Your task to perform on an android device: Search for lenovo thinkpad on newegg.com, select the first entry, add it to the cart, then select checkout. Image 0: 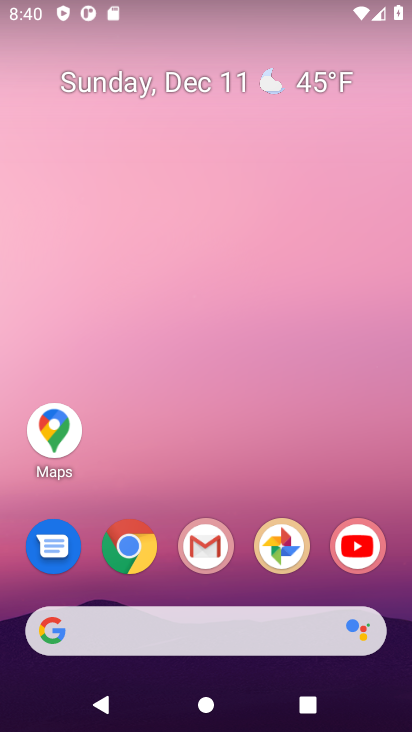
Step 0: click (127, 553)
Your task to perform on an android device: Search for lenovo thinkpad on newegg.com, select the first entry, add it to the cart, then select checkout. Image 1: 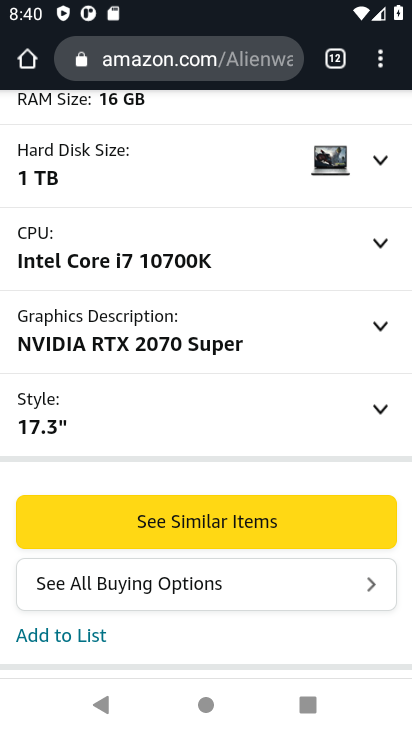
Step 1: click (156, 60)
Your task to perform on an android device: Search for lenovo thinkpad on newegg.com, select the first entry, add it to the cart, then select checkout. Image 2: 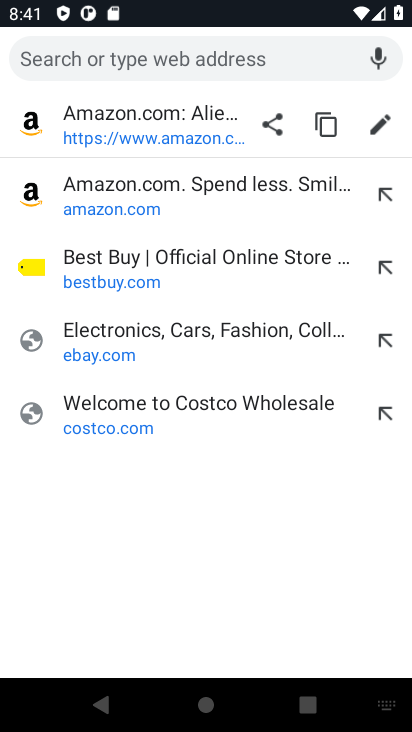
Step 2: type "newegg.com"
Your task to perform on an android device: Search for lenovo thinkpad on newegg.com, select the first entry, add it to the cart, then select checkout. Image 3: 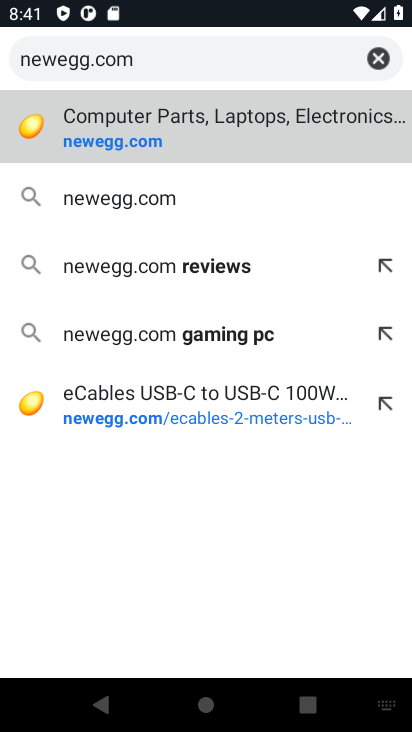
Step 3: click (126, 140)
Your task to perform on an android device: Search for lenovo thinkpad on newegg.com, select the first entry, add it to the cart, then select checkout. Image 4: 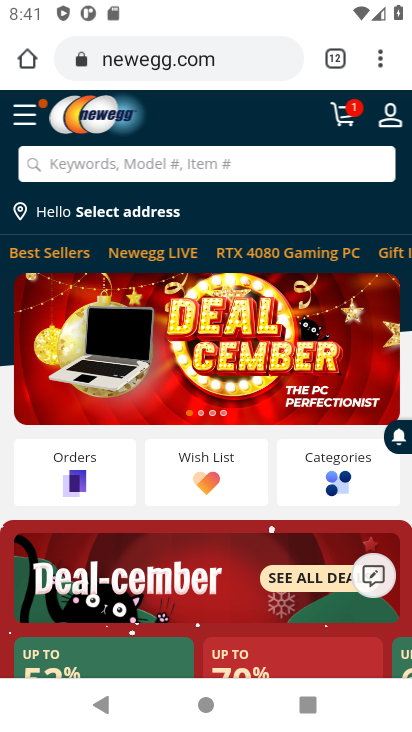
Step 4: click (80, 167)
Your task to perform on an android device: Search for lenovo thinkpad on newegg.com, select the first entry, add it to the cart, then select checkout. Image 5: 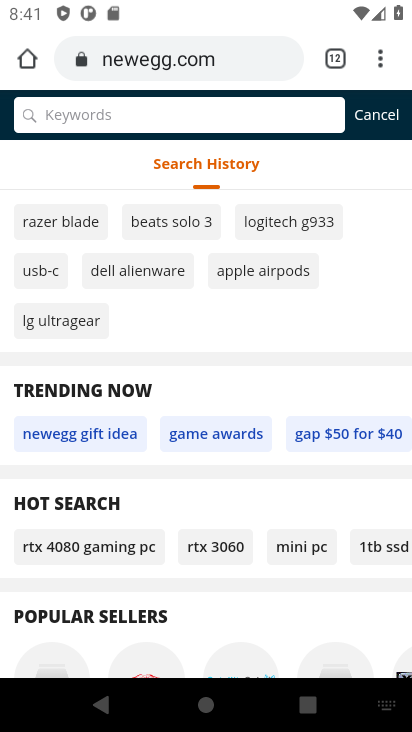
Step 5: type " lenovo thinkpad "
Your task to perform on an android device: Search for lenovo thinkpad on newegg.com, select the first entry, add it to the cart, then select checkout. Image 6: 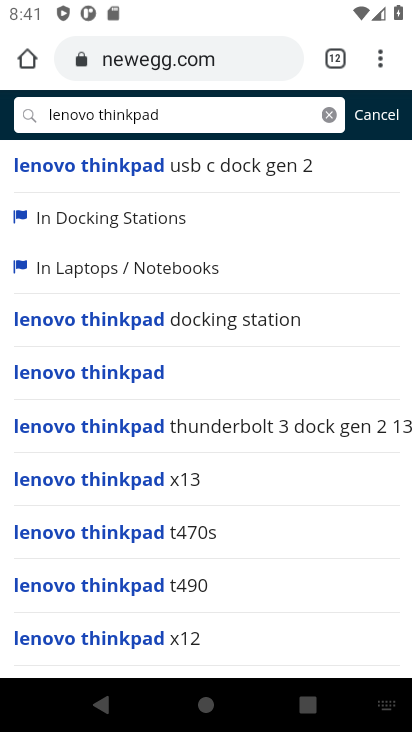
Step 6: click (97, 368)
Your task to perform on an android device: Search for lenovo thinkpad on newegg.com, select the first entry, add it to the cart, then select checkout. Image 7: 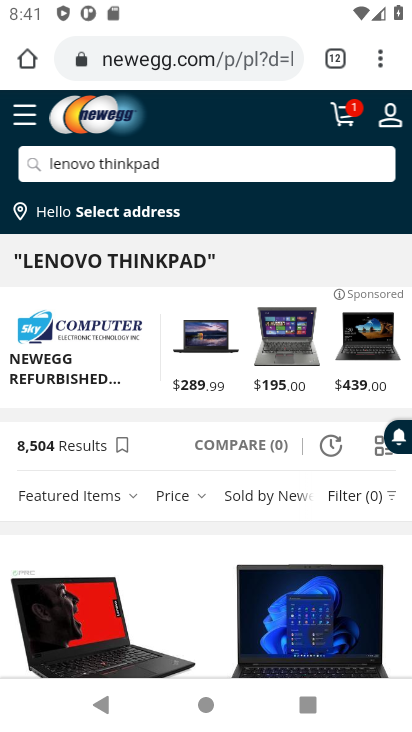
Step 7: drag from (163, 443) to (170, 220)
Your task to perform on an android device: Search for lenovo thinkpad on newegg.com, select the first entry, add it to the cart, then select checkout. Image 8: 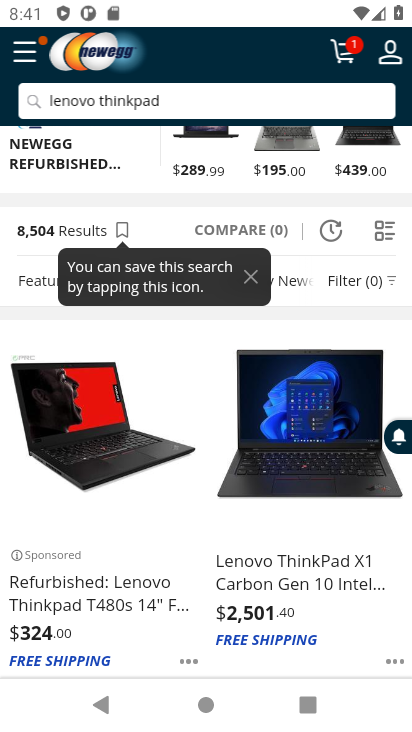
Step 8: drag from (140, 465) to (153, 247)
Your task to perform on an android device: Search for lenovo thinkpad on newegg.com, select the first entry, add it to the cart, then select checkout. Image 9: 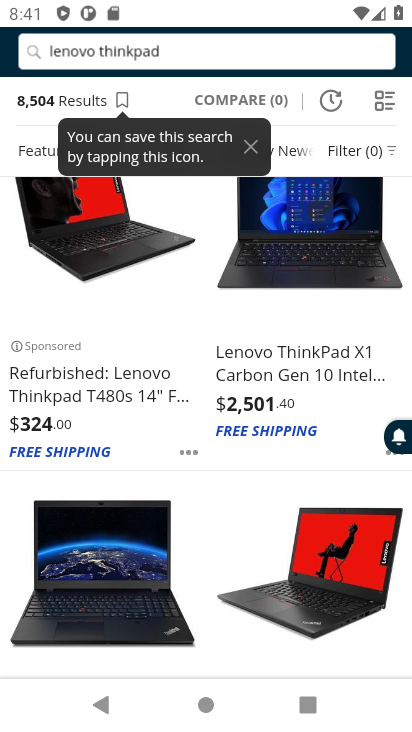
Step 9: click (81, 382)
Your task to perform on an android device: Search for lenovo thinkpad on newegg.com, select the first entry, add it to the cart, then select checkout. Image 10: 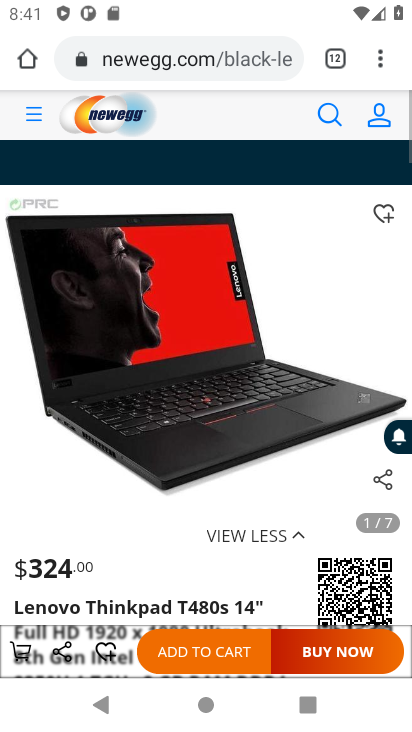
Step 10: drag from (123, 550) to (101, 227)
Your task to perform on an android device: Search for lenovo thinkpad on newegg.com, select the first entry, add it to the cart, then select checkout. Image 11: 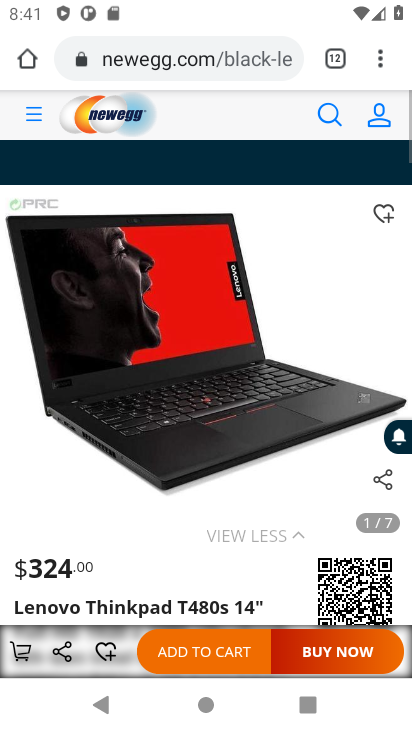
Step 11: drag from (142, 437) to (135, 165)
Your task to perform on an android device: Search for lenovo thinkpad on newegg.com, select the first entry, add it to the cart, then select checkout. Image 12: 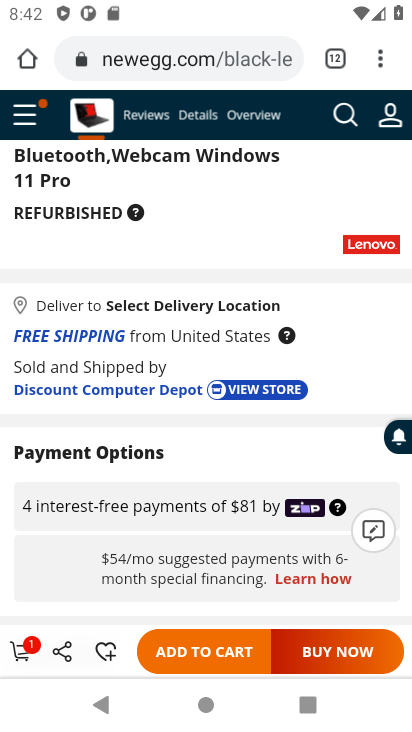
Step 12: click (188, 655)
Your task to perform on an android device: Search for lenovo thinkpad on newegg.com, select the first entry, add it to the cart, then select checkout. Image 13: 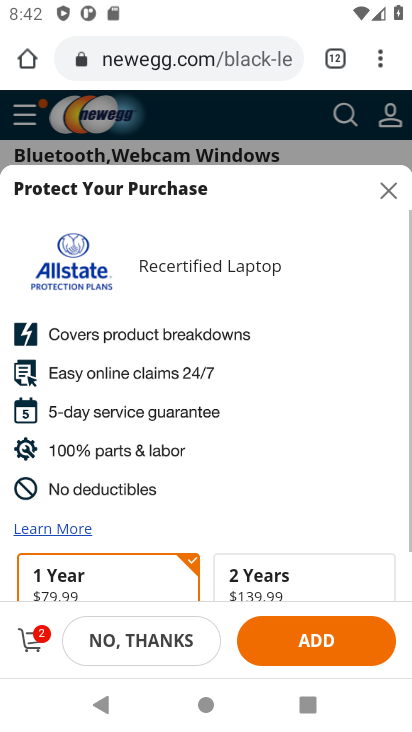
Step 13: click (31, 635)
Your task to perform on an android device: Search for lenovo thinkpad on newegg.com, select the first entry, add it to the cart, then select checkout. Image 14: 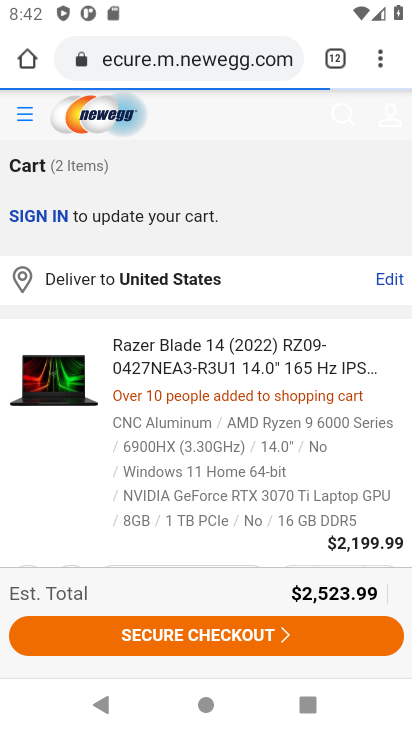
Step 14: click (143, 641)
Your task to perform on an android device: Search for lenovo thinkpad on newegg.com, select the first entry, add it to the cart, then select checkout. Image 15: 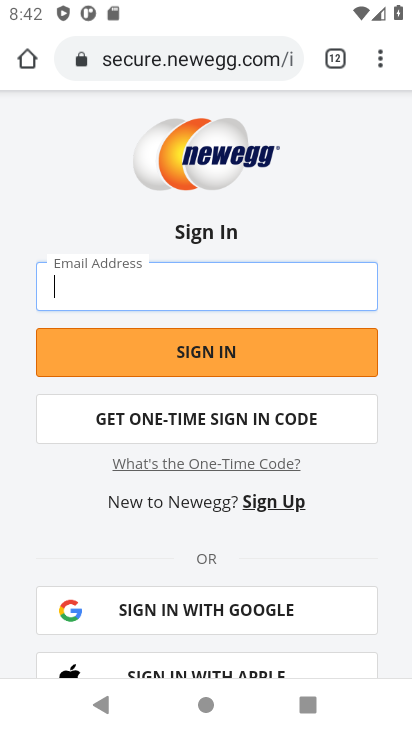
Step 15: task complete